Your task to perform on an android device: remove spam from my inbox in the gmail app Image 0: 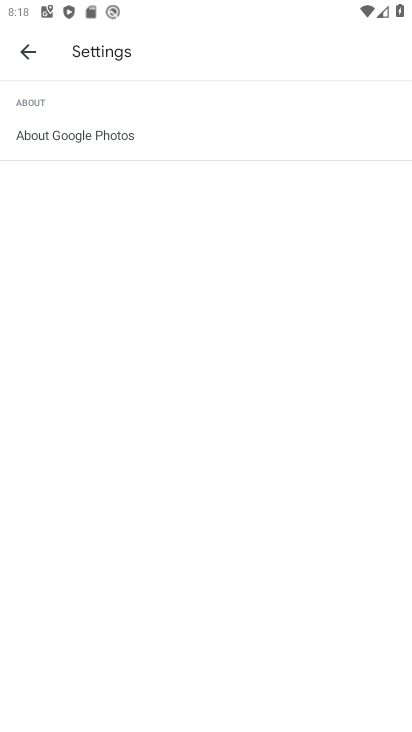
Step 0: press back button
Your task to perform on an android device: remove spam from my inbox in the gmail app Image 1: 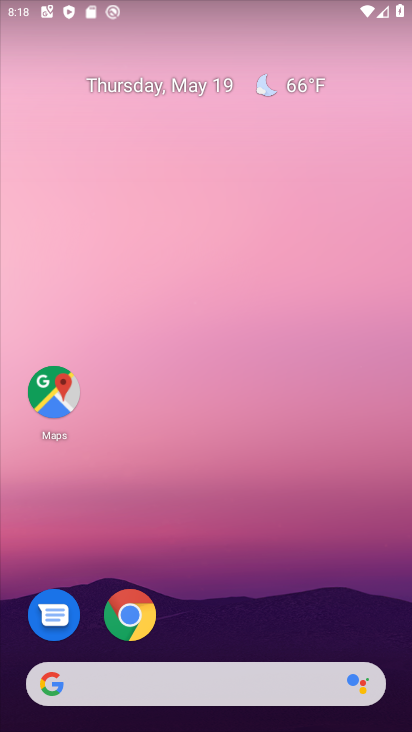
Step 1: drag from (257, 608) to (247, 198)
Your task to perform on an android device: remove spam from my inbox in the gmail app Image 2: 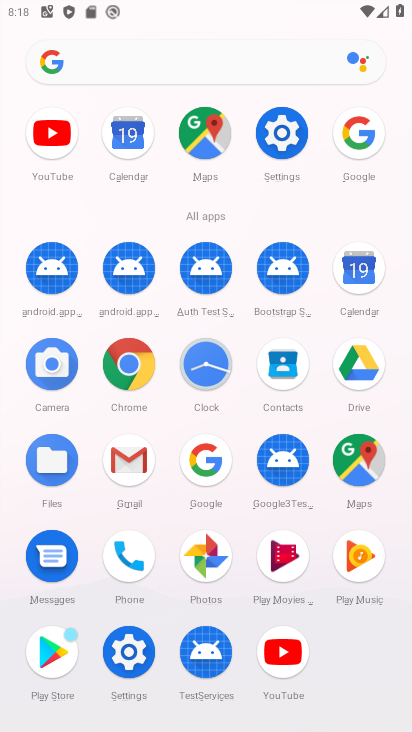
Step 2: click (124, 459)
Your task to perform on an android device: remove spam from my inbox in the gmail app Image 3: 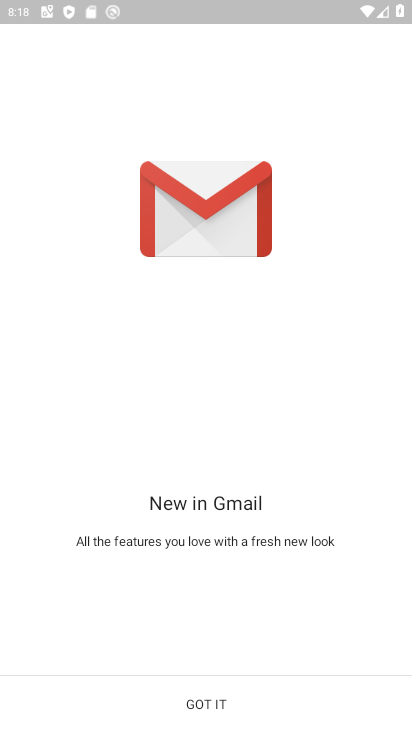
Step 3: click (199, 704)
Your task to perform on an android device: remove spam from my inbox in the gmail app Image 4: 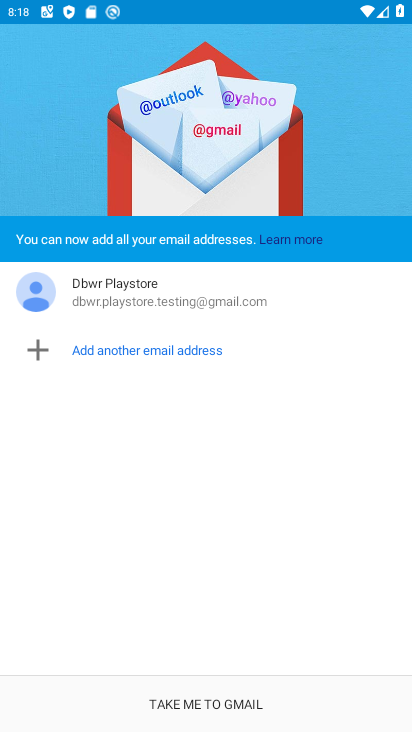
Step 4: click (199, 704)
Your task to perform on an android device: remove spam from my inbox in the gmail app Image 5: 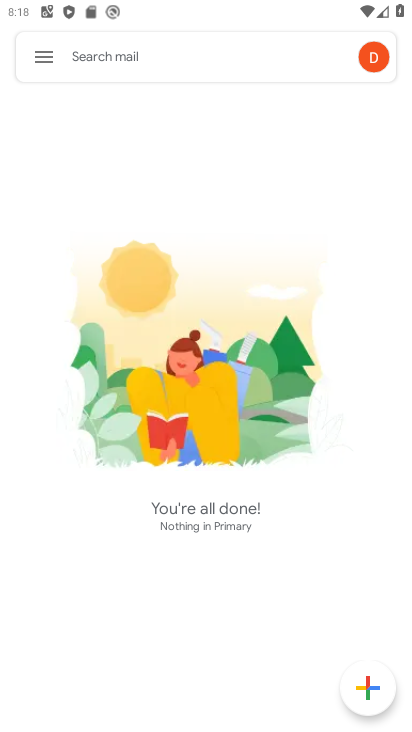
Step 5: click (40, 47)
Your task to perform on an android device: remove spam from my inbox in the gmail app Image 6: 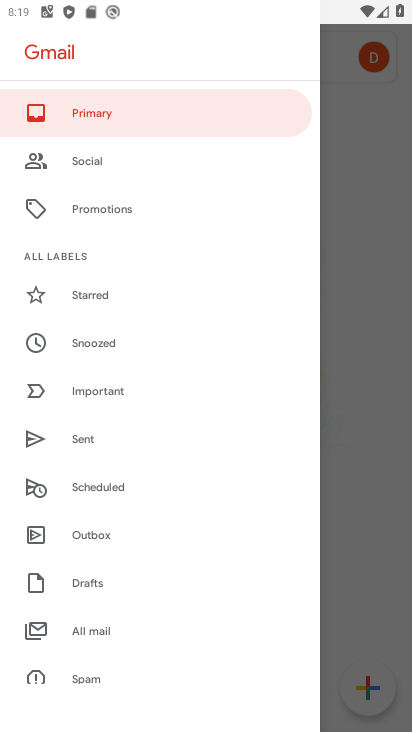
Step 6: drag from (106, 594) to (104, 475)
Your task to perform on an android device: remove spam from my inbox in the gmail app Image 7: 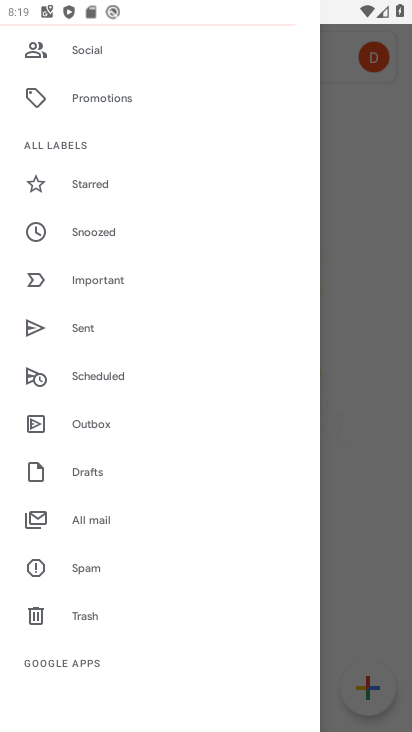
Step 7: click (101, 570)
Your task to perform on an android device: remove spam from my inbox in the gmail app Image 8: 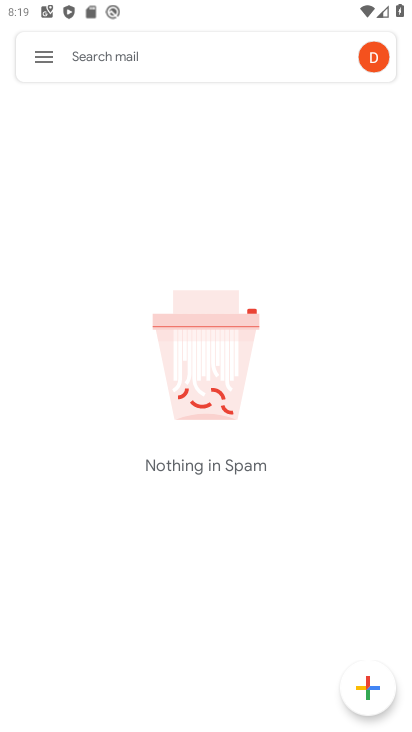
Step 8: task complete